Your task to perform on an android device: What's the weather today? Image 0: 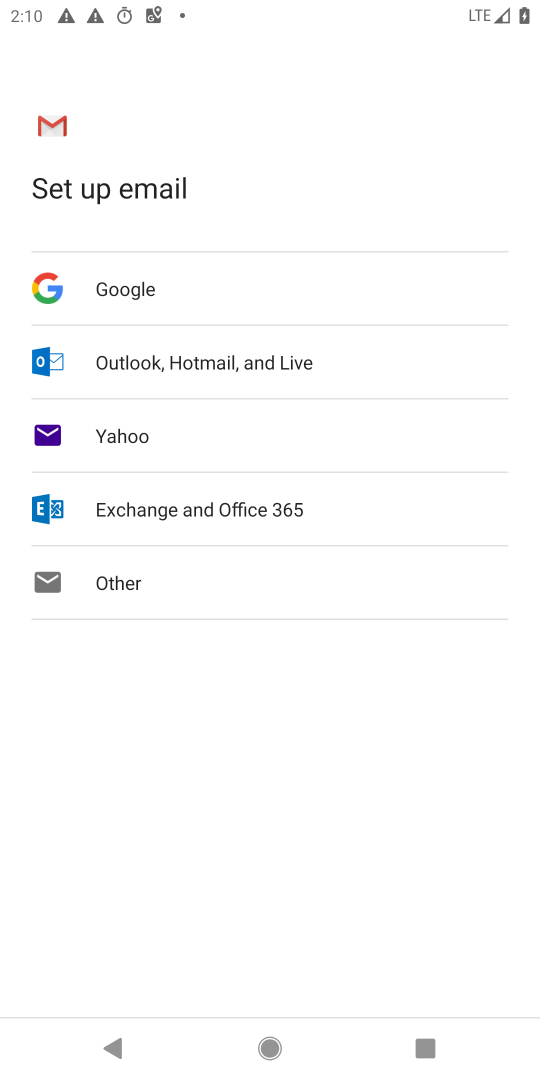
Step 0: press home button
Your task to perform on an android device: What's the weather today? Image 1: 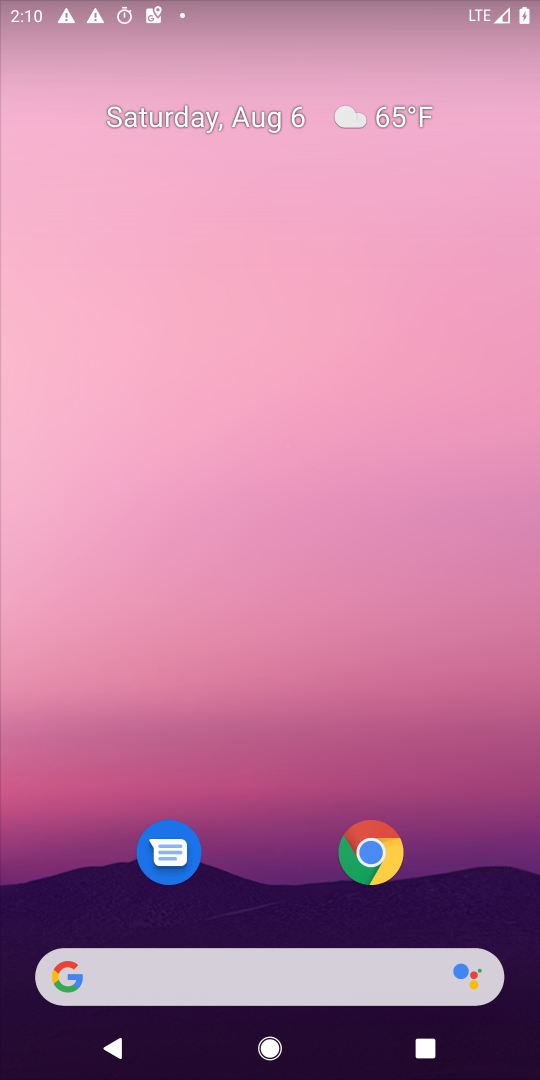
Step 1: drag from (380, 979) to (354, 295)
Your task to perform on an android device: What's the weather today? Image 2: 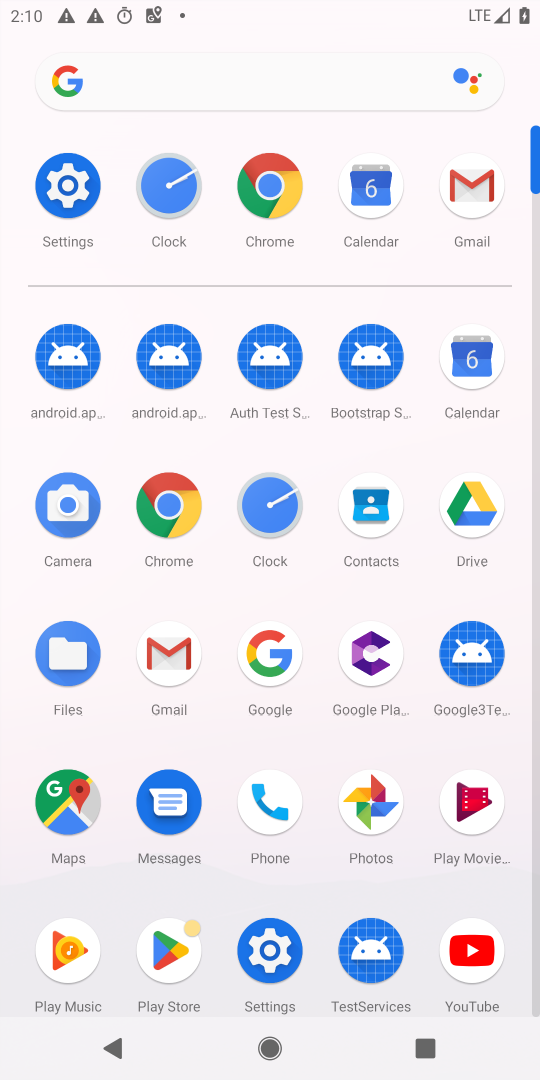
Step 2: click (120, 92)
Your task to perform on an android device: What's the weather today? Image 3: 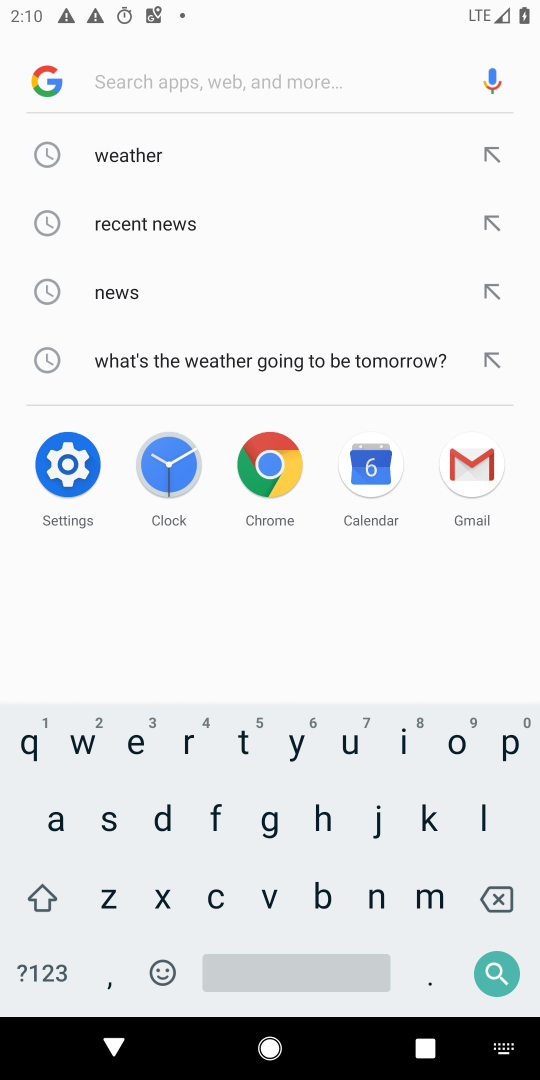
Step 3: click (145, 158)
Your task to perform on an android device: What's the weather today? Image 4: 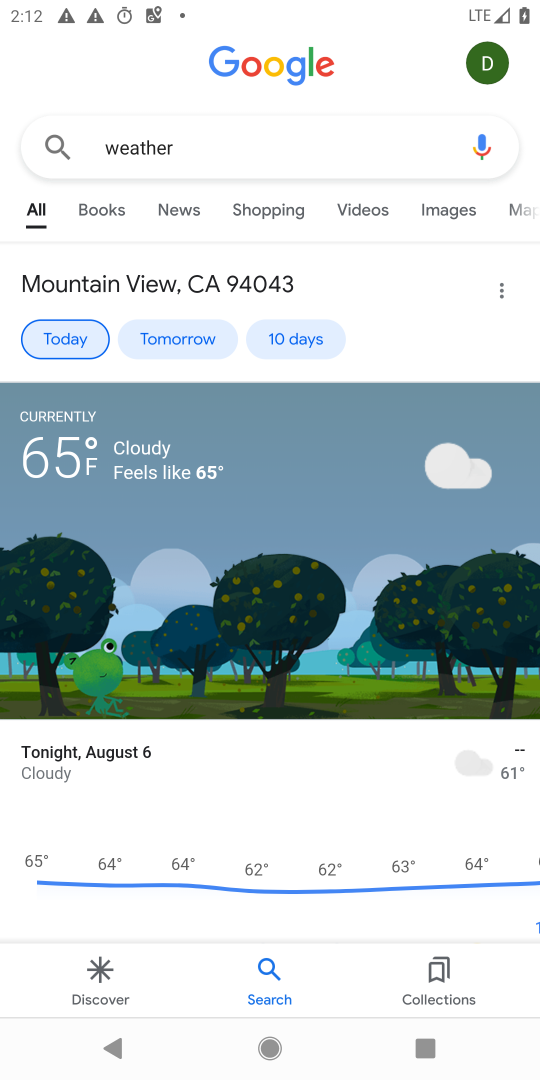
Step 4: task complete